Your task to perform on an android device: Search for Mexican restaurants on Maps Image 0: 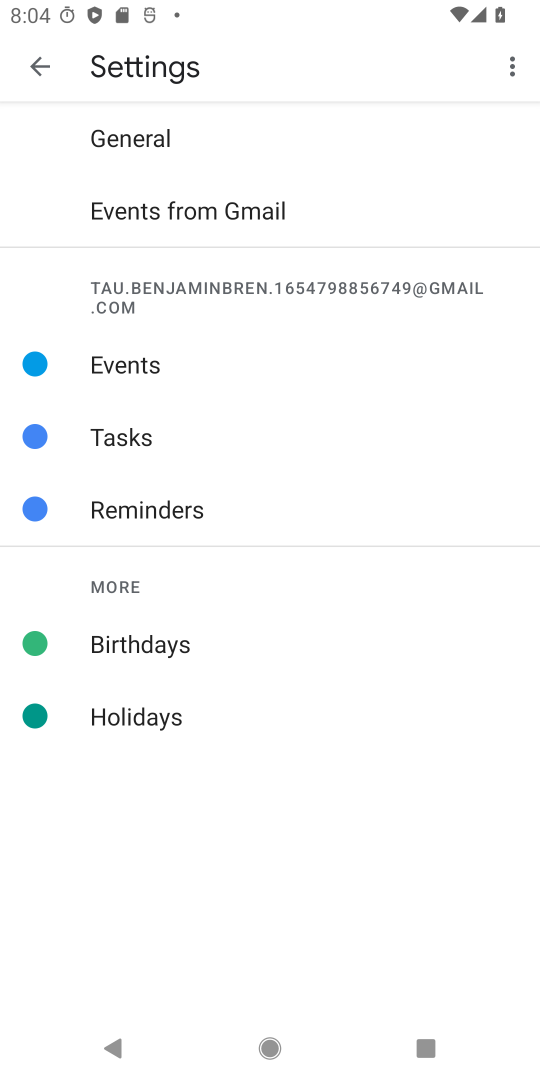
Step 0: press home button
Your task to perform on an android device: Search for Mexican restaurants on Maps Image 1: 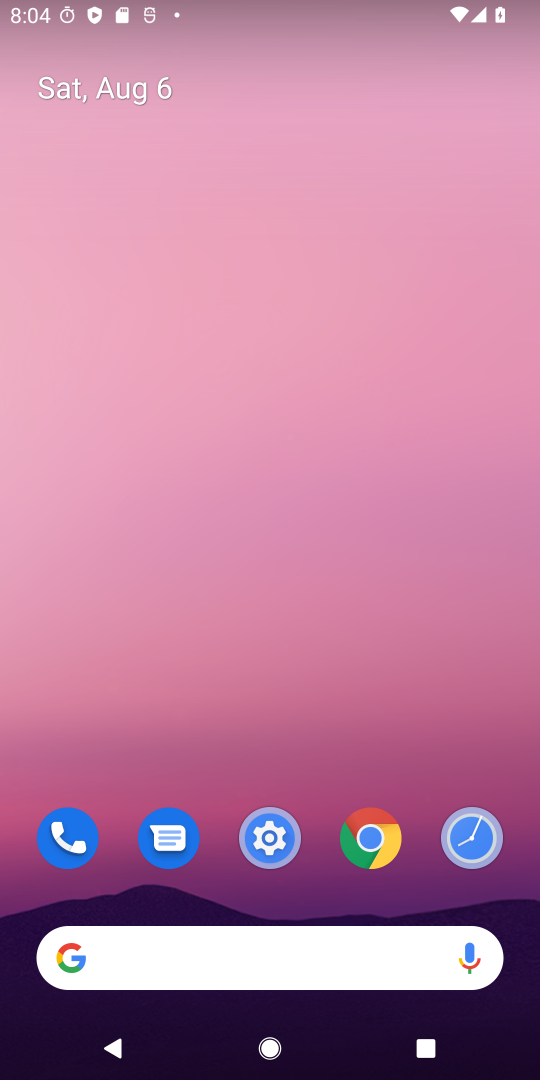
Step 1: drag from (288, 872) to (186, 0)
Your task to perform on an android device: Search for Mexican restaurants on Maps Image 2: 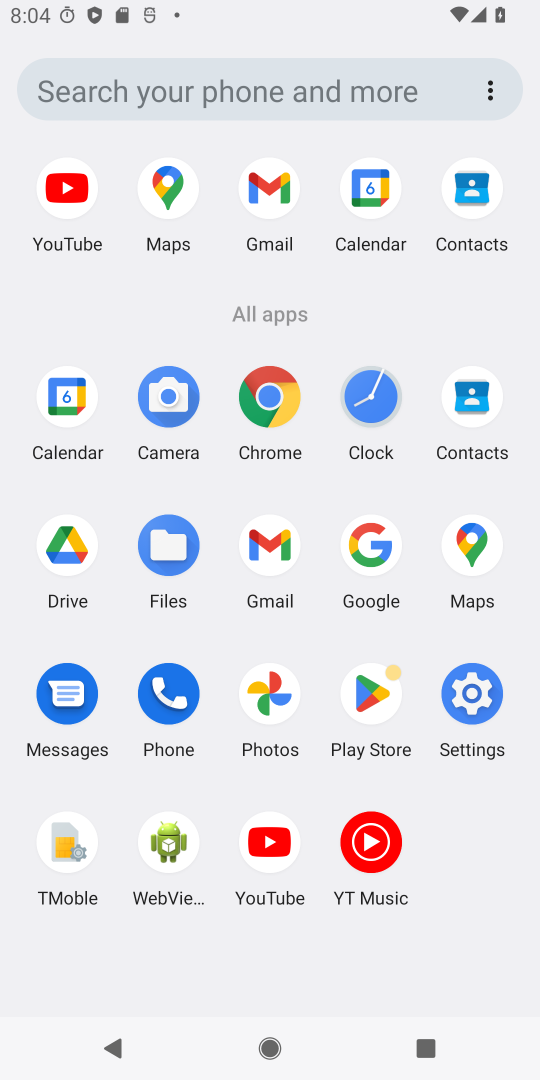
Step 2: click (464, 560)
Your task to perform on an android device: Search for Mexican restaurants on Maps Image 3: 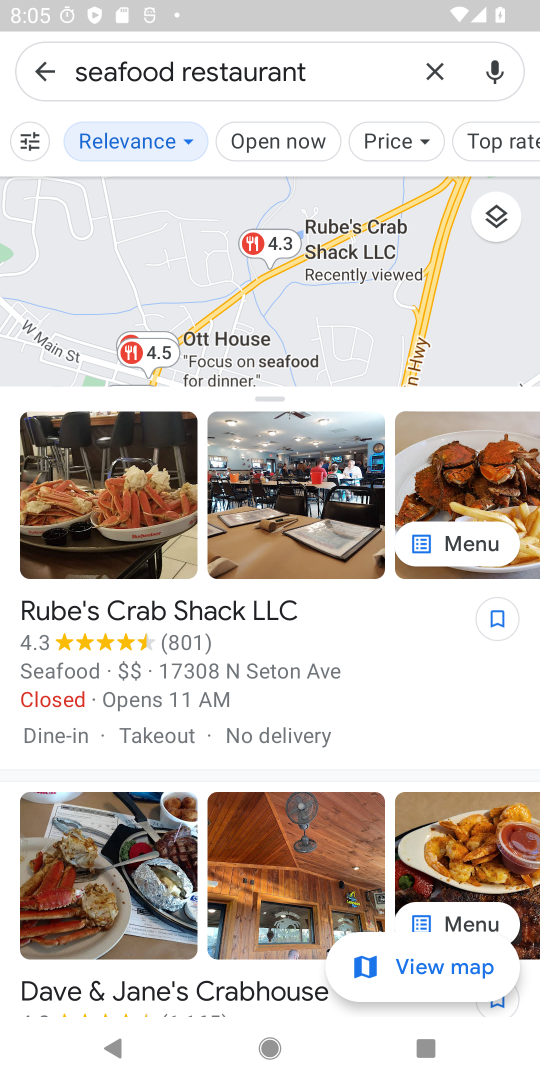
Step 3: click (429, 74)
Your task to perform on an android device: Search for Mexican restaurants on Maps Image 4: 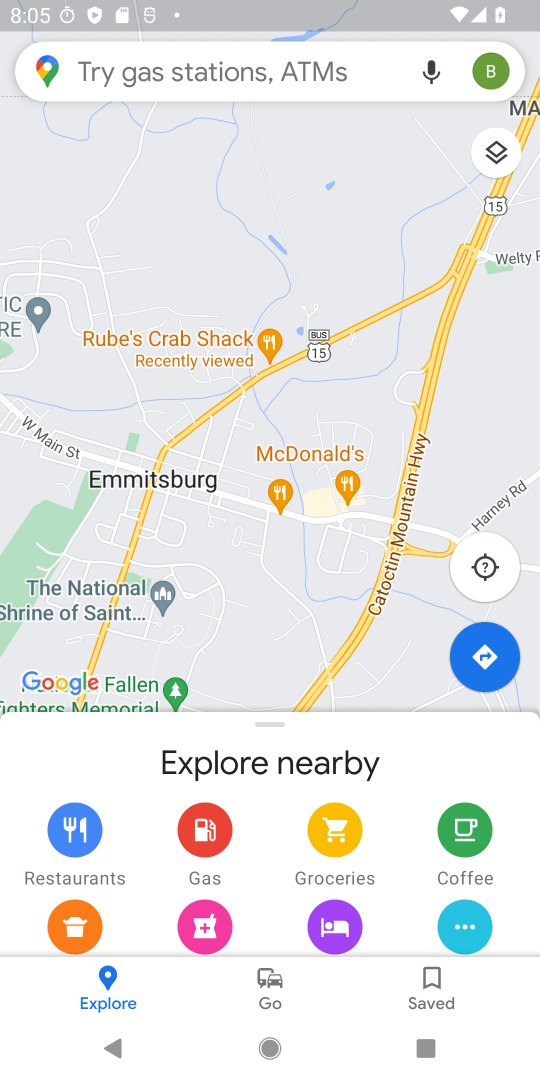
Step 4: click (193, 66)
Your task to perform on an android device: Search for Mexican restaurants on Maps Image 5: 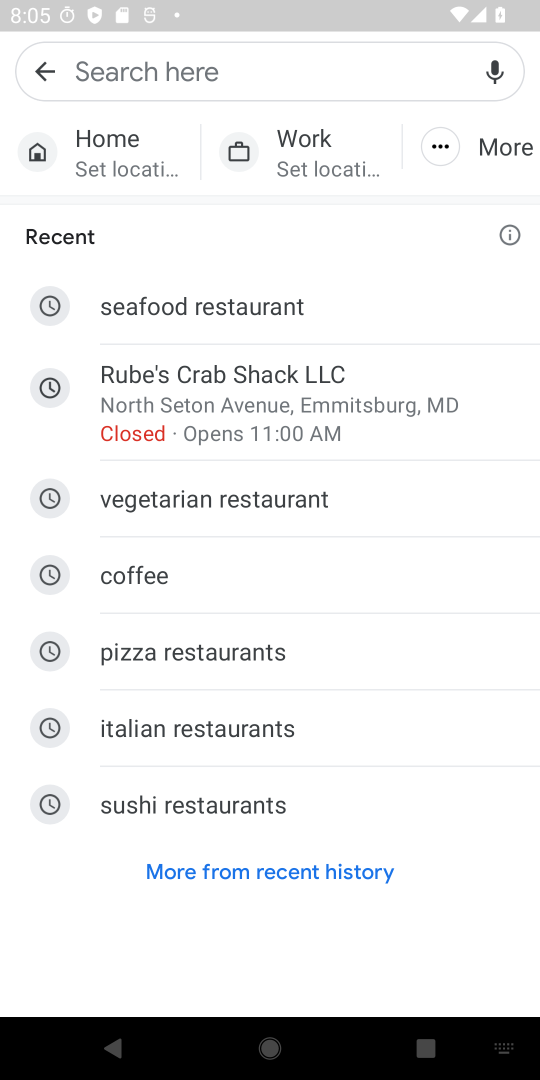
Step 5: type "Mexican restaurants"
Your task to perform on an android device: Search for Mexican restaurants on Maps Image 6: 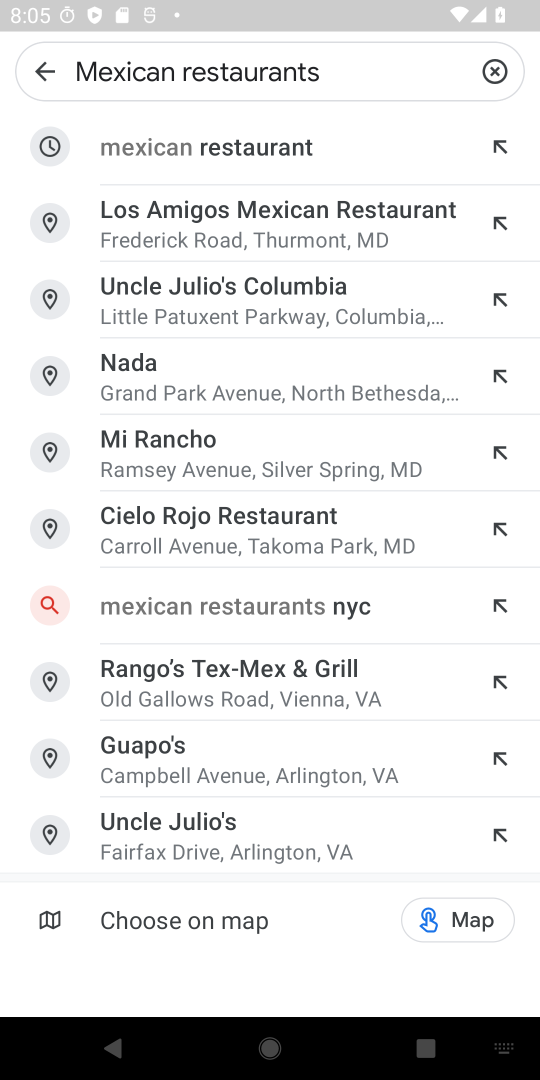
Step 6: click (177, 159)
Your task to perform on an android device: Search for Mexican restaurants on Maps Image 7: 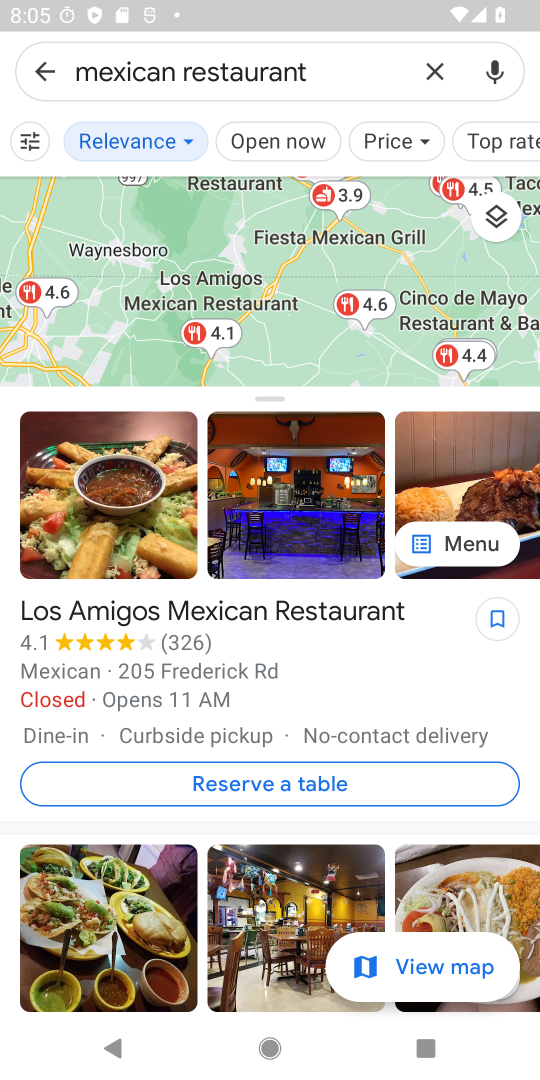
Step 7: task complete